Your task to perform on an android device: Go to CNN.com Image 0: 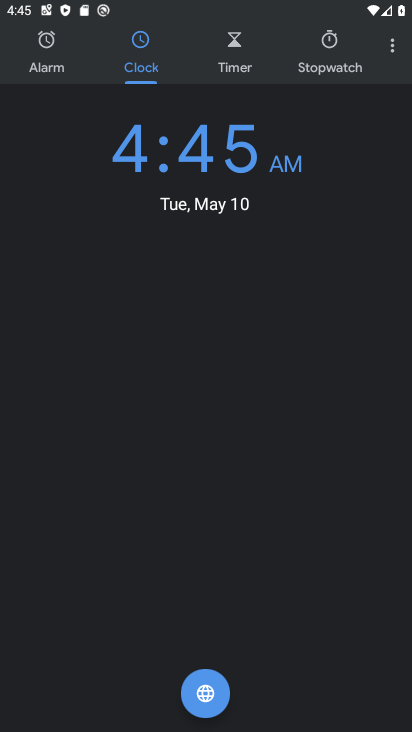
Step 0: press home button
Your task to perform on an android device: Go to CNN.com Image 1: 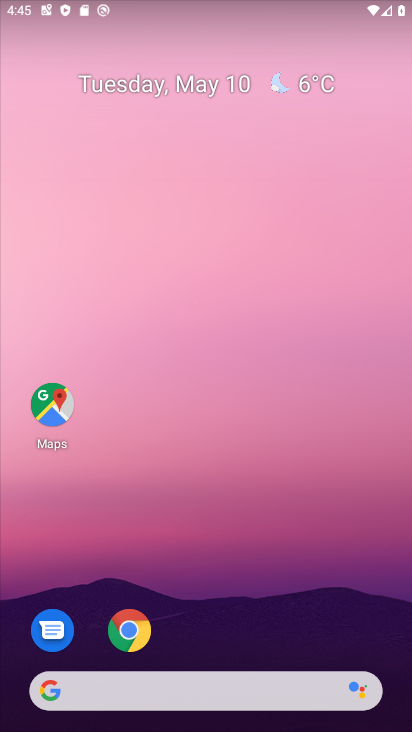
Step 1: click (120, 628)
Your task to perform on an android device: Go to CNN.com Image 2: 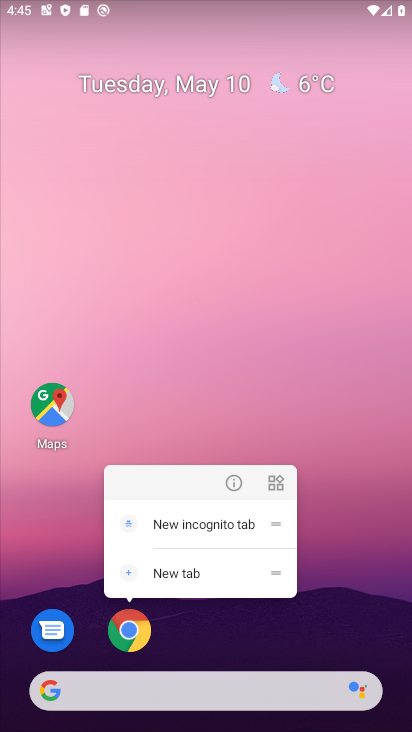
Step 2: click (132, 632)
Your task to perform on an android device: Go to CNN.com Image 3: 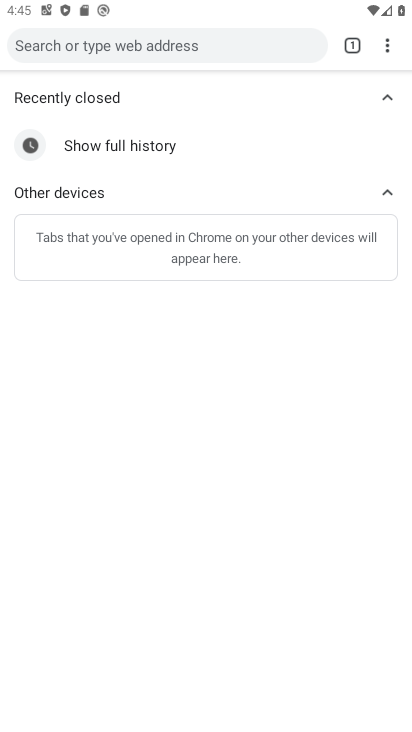
Step 3: click (270, 41)
Your task to perform on an android device: Go to CNN.com Image 4: 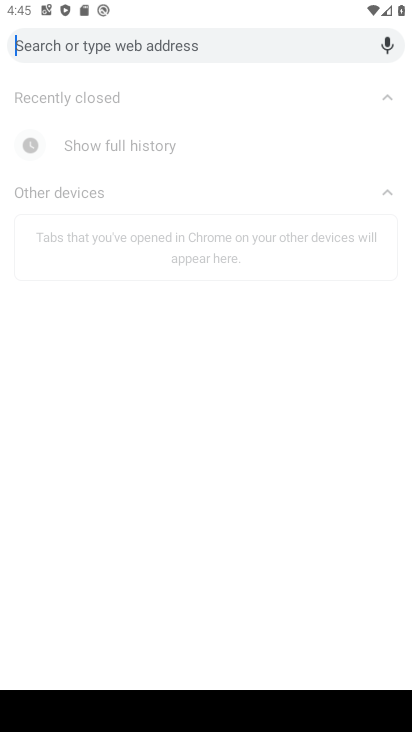
Step 4: type "cnn.com"
Your task to perform on an android device: Go to CNN.com Image 5: 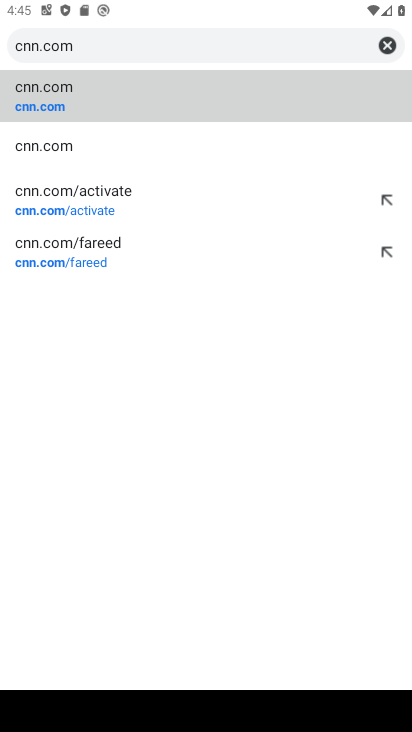
Step 5: click (53, 100)
Your task to perform on an android device: Go to CNN.com Image 6: 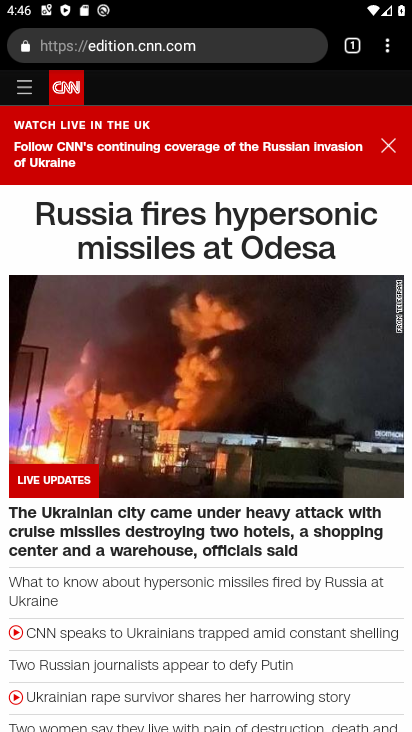
Step 6: task complete